Your task to perform on an android device: Search for seafood restaurants on Google Maps Image 0: 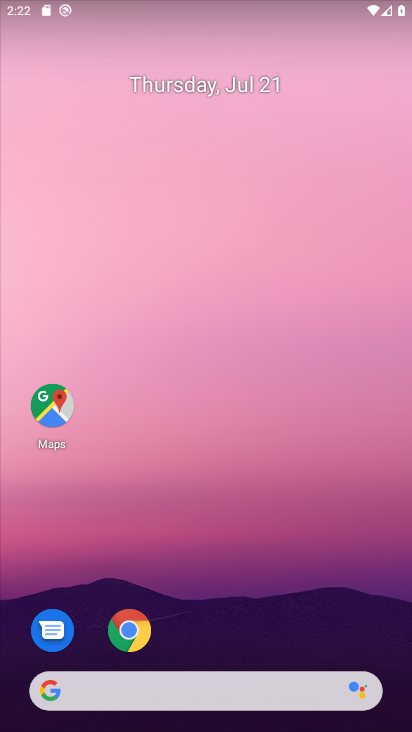
Step 0: click (399, 544)
Your task to perform on an android device: Search for seafood restaurants on Google Maps Image 1: 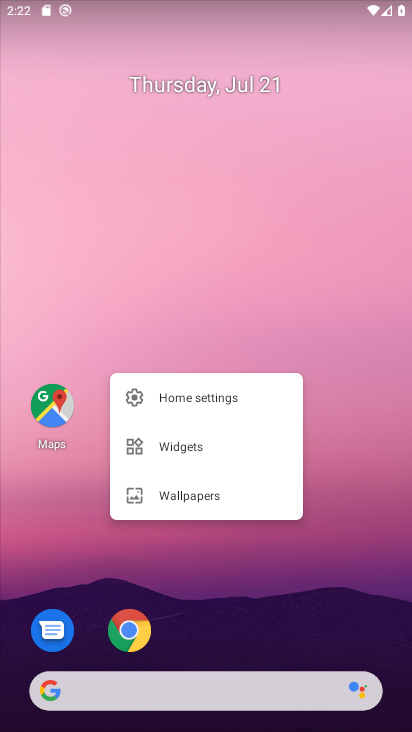
Step 1: drag from (219, 552) to (129, 171)
Your task to perform on an android device: Search for seafood restaurants on Google Maps Image 2: 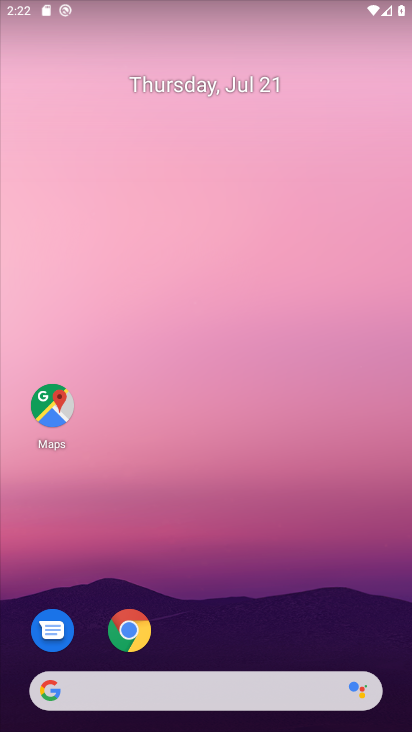
Step 2: drag from (207, 433) to (177, 238)
Your task to perform on an android device: Search for seafood restaurants on Google Maps Image 3: 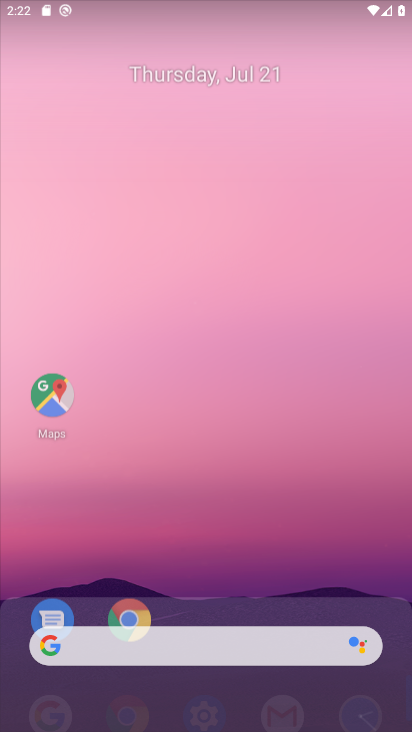
Step 3: drag from (238, 373) to (234, 51)
Your task to perform on an android device: Search for seafood restaurants on Google Maps Image 4: 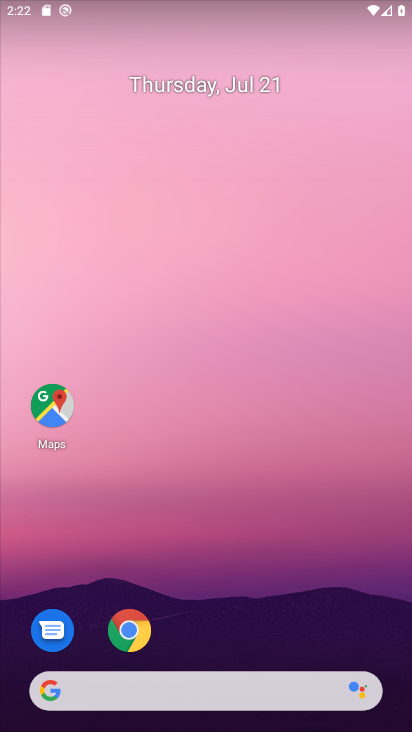
Step 4: drag from (183, 529) to (197, 8)
Your task to perform on an android device: Search for seafood restaurants on Google Maps Image 5: 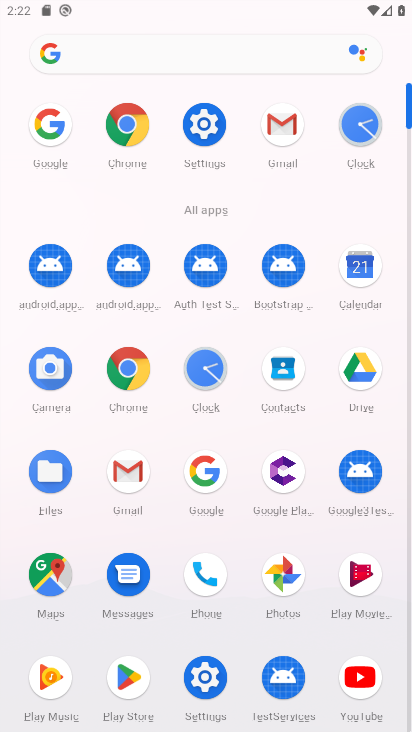
Step 5: click (39, 570)
Your task to perform on an android device: Search for seafood restaurants on Google Maps Image 6: 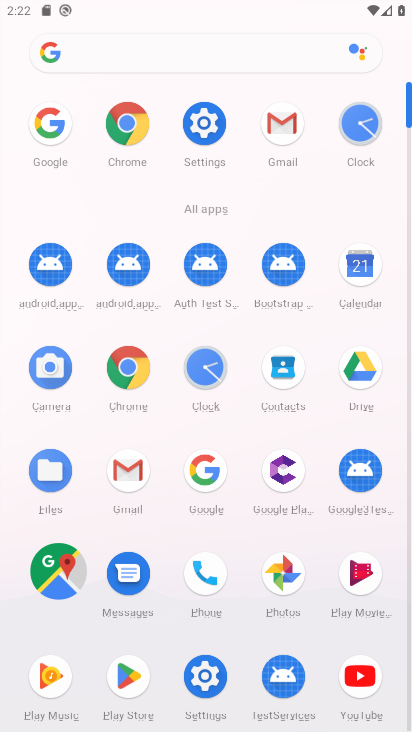
Step 6: click (36, 570)
Your task to perform on an android device: Search for seafood restaurants on Google Maps Image 7: 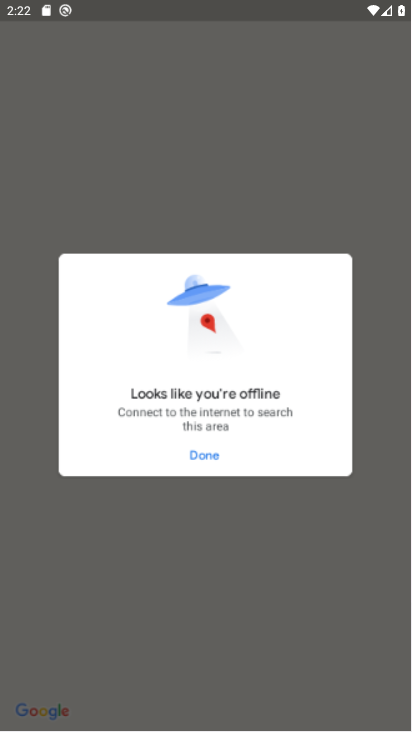
Step 7: click (36, 573)
Your task to perform on an android device: Search for seafood restaurants on Google Maps Image 8: 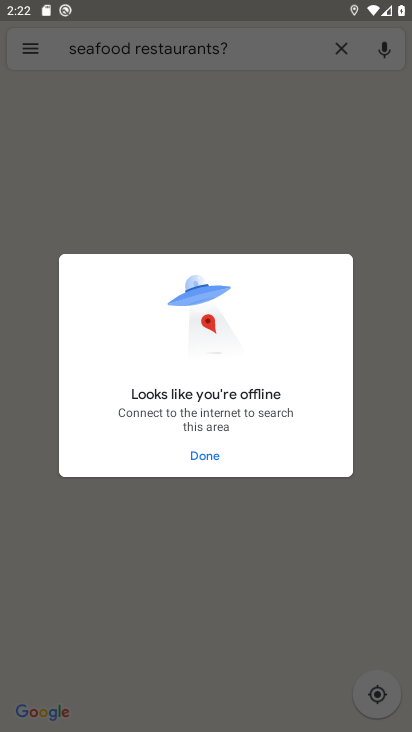
Step 8: click (148, 135)
Your task to perform on an android device: Search for seafood restaurants on Google Maps Image 9: 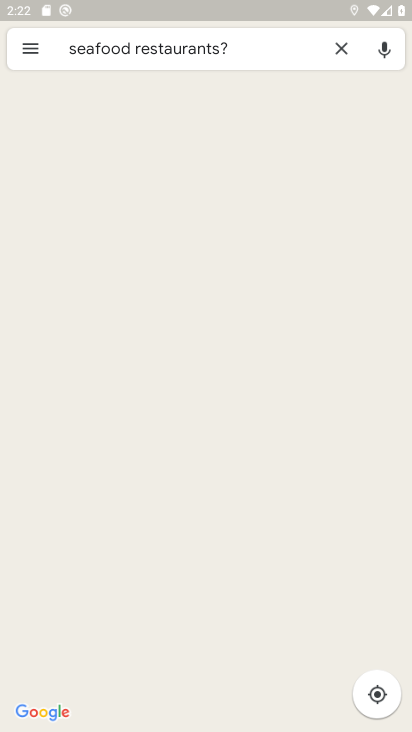
Step 9: click (193, 444)
Your task to perform on an android device: Search for seafood restaurants on Google Maps Image 10: 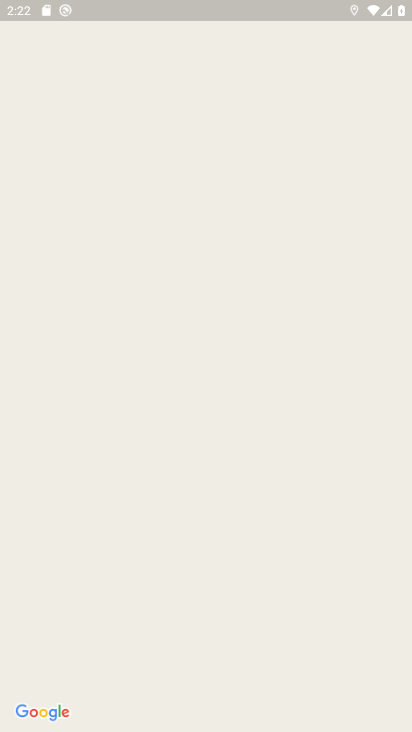
Step 10: click (165, 382)
Your task to perform on an android device: Search for seafood restaurants on Google Maps Image 11: 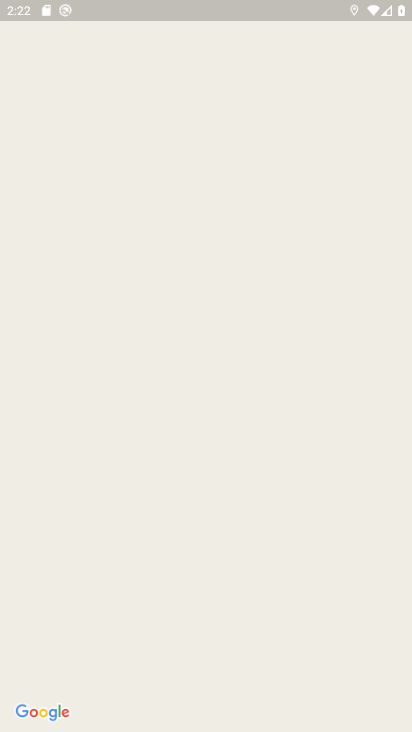
Step 11: click (189, 319)
Your task to perform on an android device: Search for seafood restaurants on Google Maps Image 12: 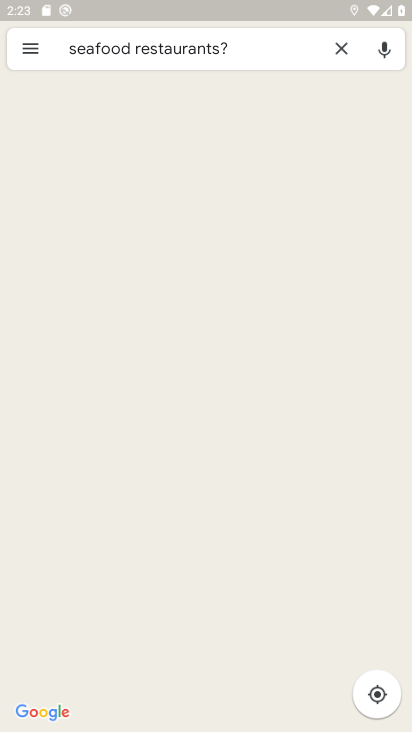
Step 12: click (250, 38)
Your task to perform on an android device: Search for seafood restaurants on Google Maps Image 13: 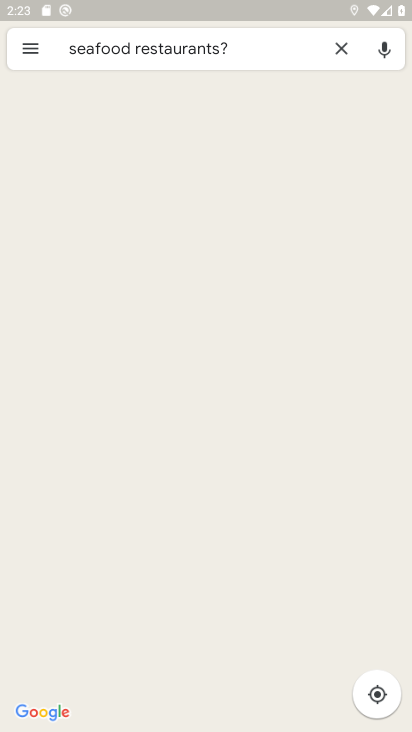
Step 13: click (249, 39)
Your task to perform on an android device: Search for seafood restaurants on Google Maps Image 14: 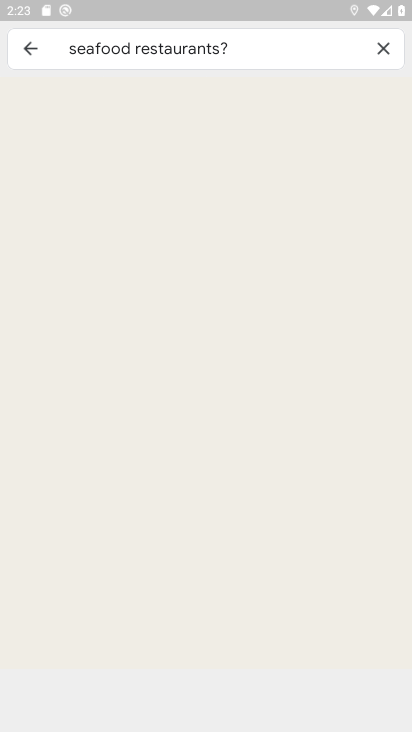
Step 14: click (249, 39)
Your task to perform on an android device: Search for seafood restaurants on Google Maps Image 15: 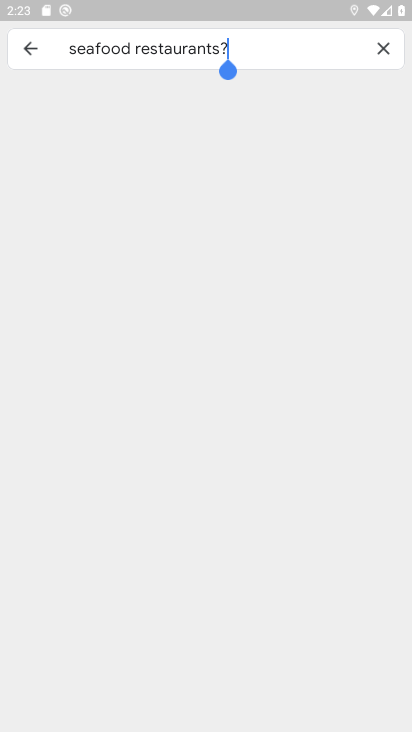
Step 15: click (251, 41)
Your task to perform on an android device: Search for seafood restaurants on Google Maps Image 16: 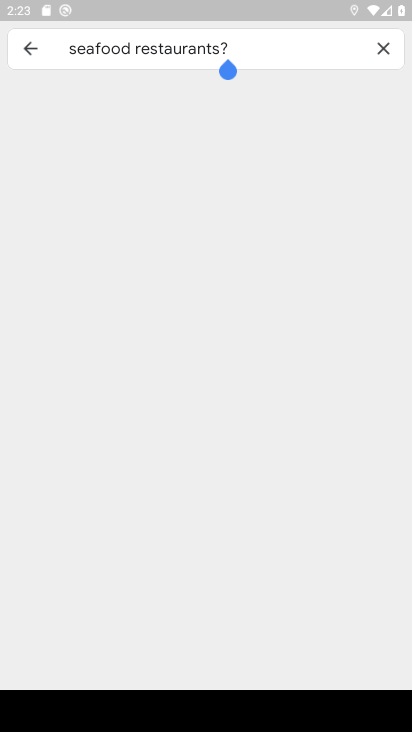
Step 16: task complete